Your task to perform on an android device: check out phone information Image 0: 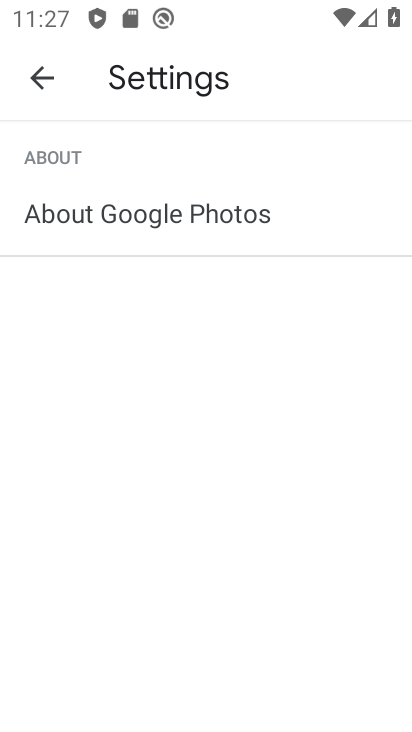
Step 0: click (41, 95)
Your task to perform on an android device: check out phone information Image 1: 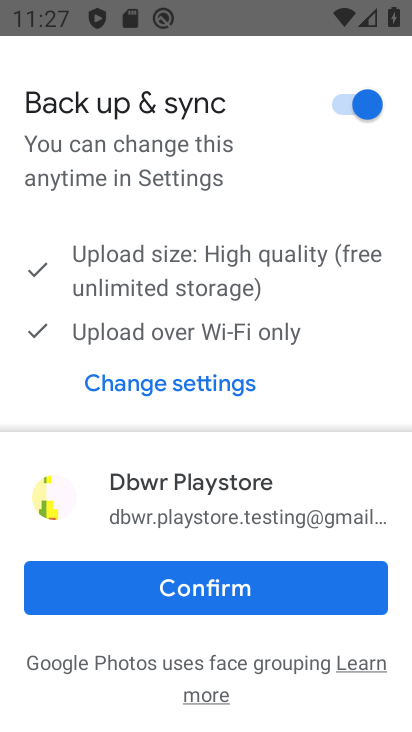
Step 1: press home button
Your task to perform on an android device: check out phone information Image 2: 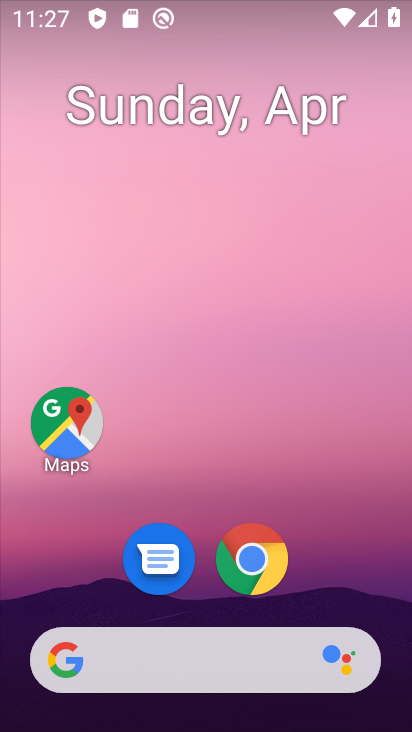
Step 2: drag from (330, 568) to (236, 144)
Your task to perform on an android device: check out phone information Image 3: 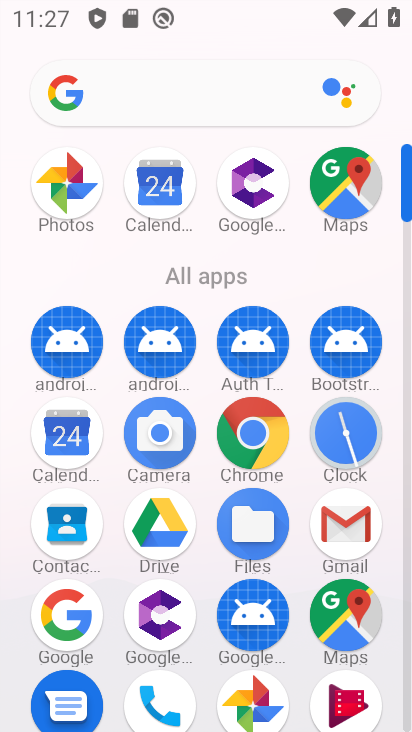
Step 3: click (408, 686)
Your task to perform on an android device: check out phone information Image 4: 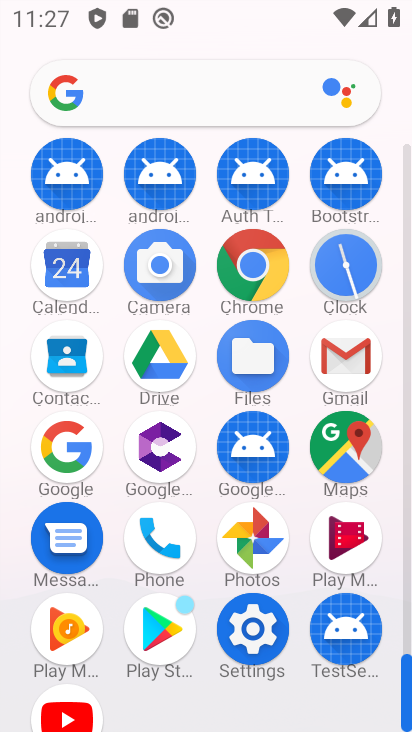
Step 4: click (408, 686)
Your task to perform on an android device: check out phone information Image 5: 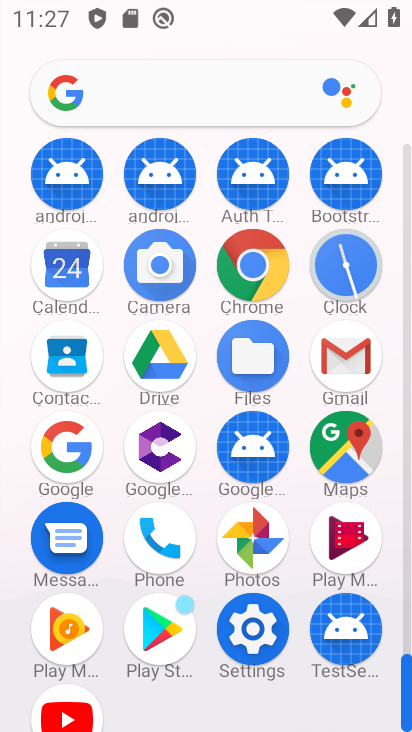
Step 5: click (239, 645)
Your task to perform on an android device: check out phone information Image 6: 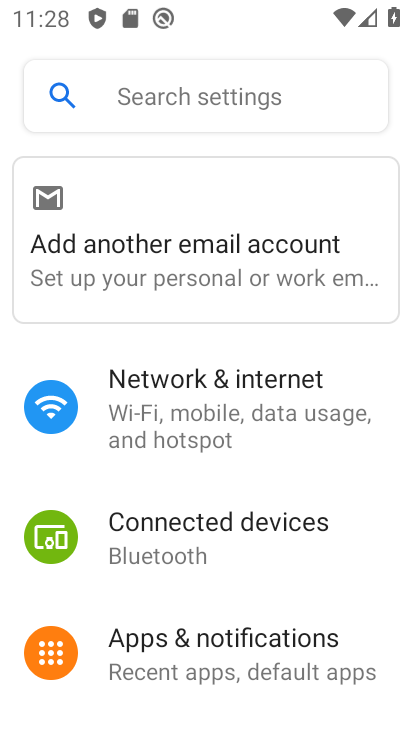
Step 6: drag from (279, 626) to (299, 269)
Your task to perform on an android device: check out phone information Image 7: 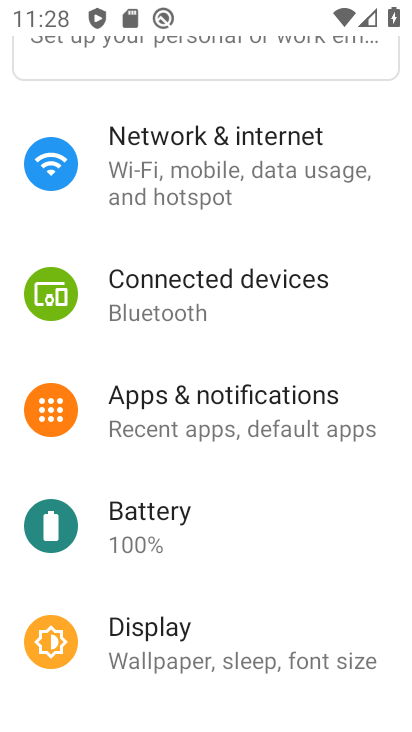
Step 7: drag from (223, 584) to (292, 43)
Your task to perform on an android device: check out phone information Image 8: 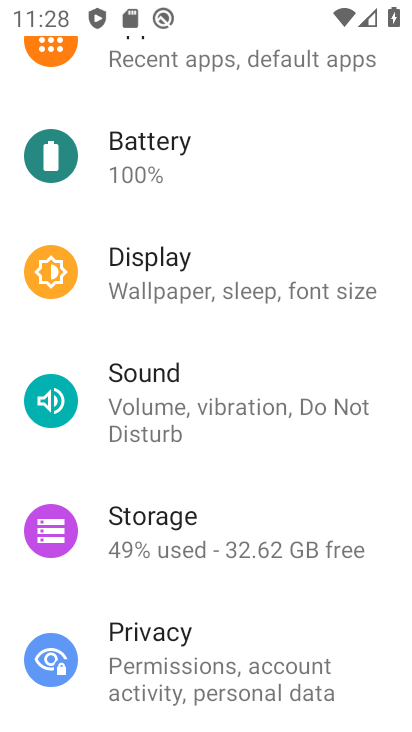
Step 8: drag from (199, 619) to (291, 132)
Your task to perform on an android device: check out phone information Image 9: 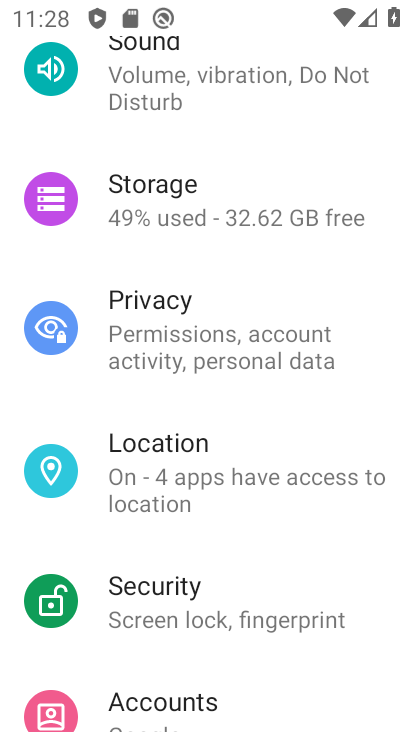
Step 9: drag from (193, 653) to (233, 332)
Your task to perform on an android device: check out phone information Image 10: 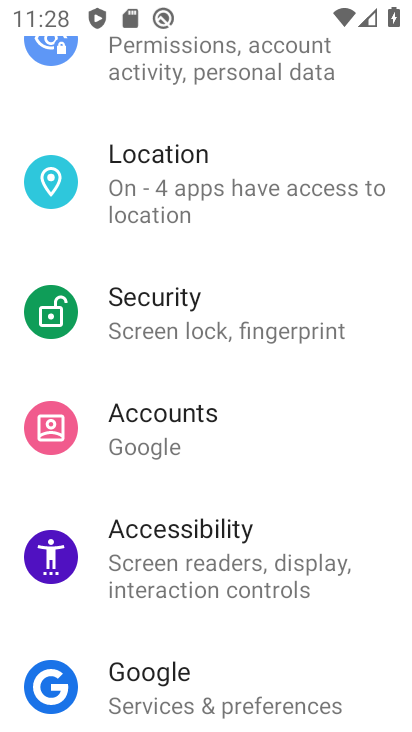
Step 10: drag from (178, 619) to (255, 215)
Your task to perform on an android device: check out phone information Image 11: 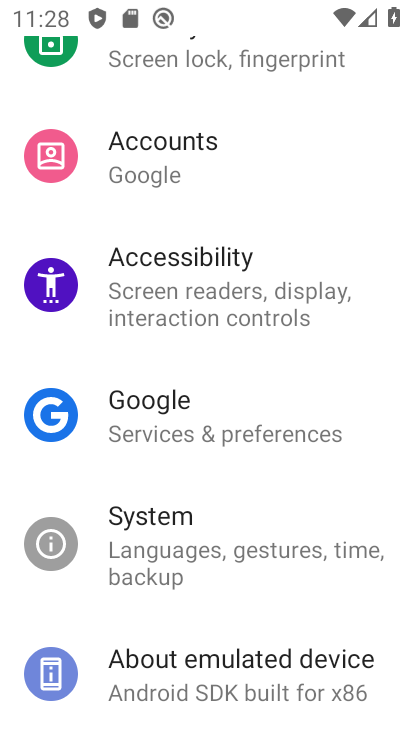
Step 11: drag from (238, 473) to (276, 305)
Your task to perform on an android device: check out phone information Image 12: 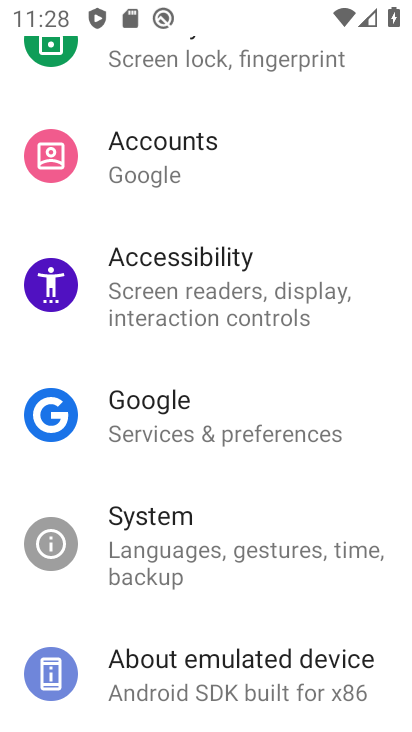
Step 12: click (249, 685)
Your task to perform on an android device: check out phone information Image 13: 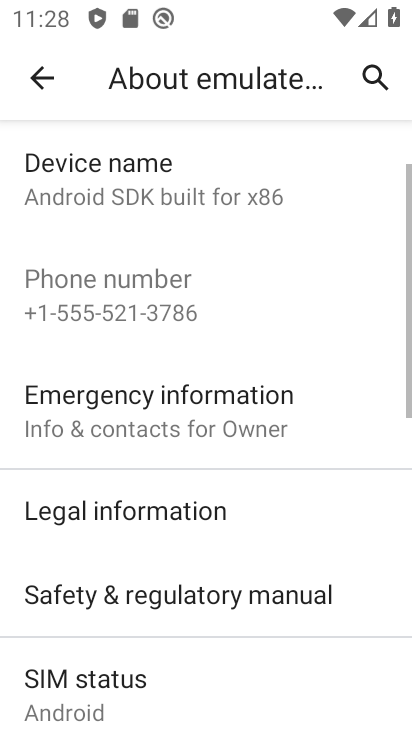
Step 13: task complete